Your task to perform on an android device: find which apps use the phone's location Image 0: 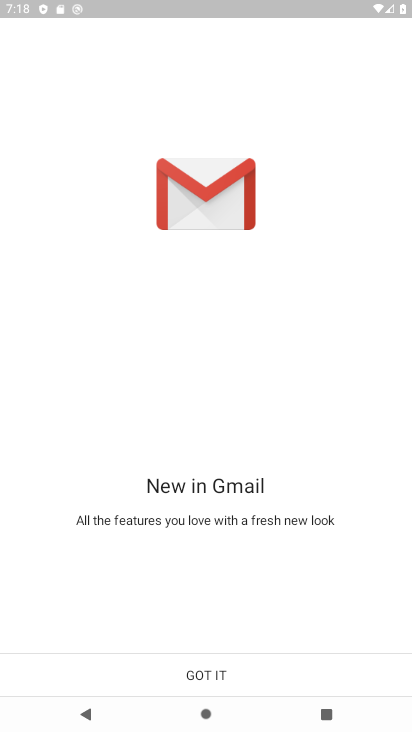
Step 0: press home button
Your task to perform on an android device: find which apps use the phone's location Image 1: 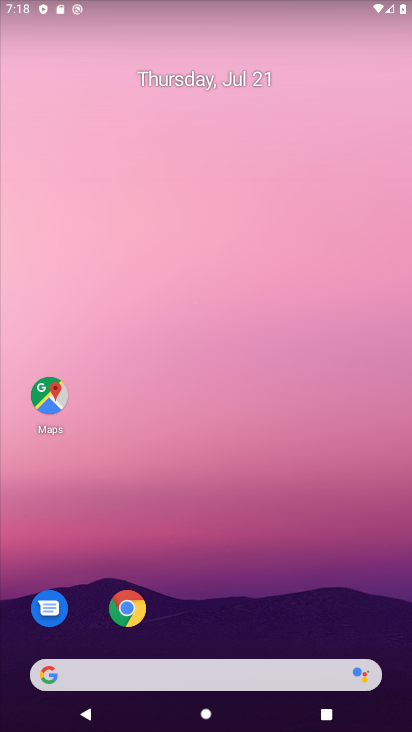
Step 1: drag from (174, 672) to (219, 202)
Your task to perform on an android device: find which apps use the phone's location Image 2: 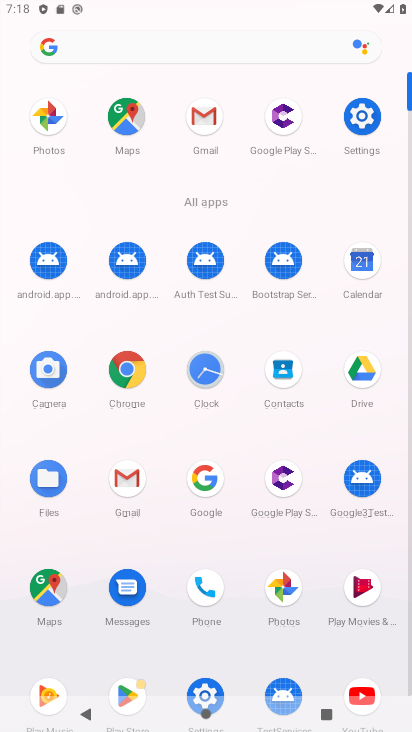
Step 2: click (363, 116)
Your task to perform on an android device: find which apps use the phone's location Image 3: 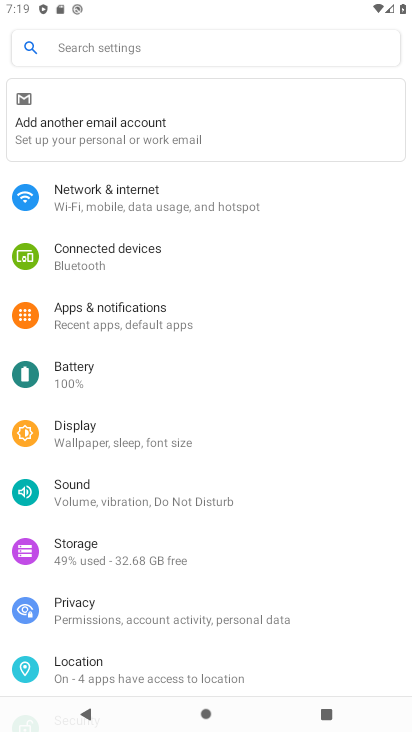
Step 3: click (87, 669)
Your task to perform on an android device: find which apps use the phone's location Image 4: 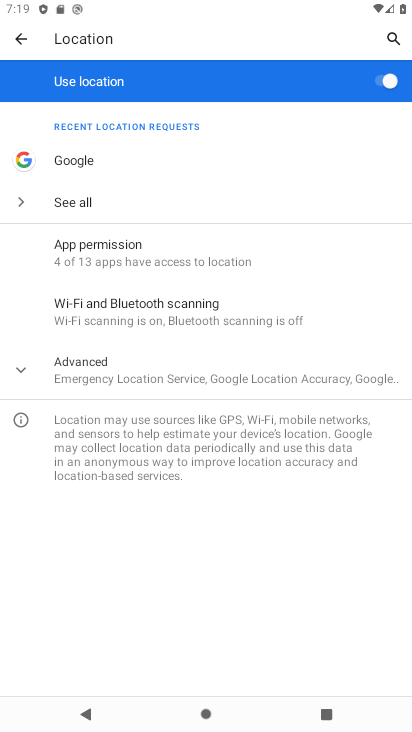
Step 4: click (172, 261)
Your task to perform on an android device: find which apps use the phone's location Image 5: 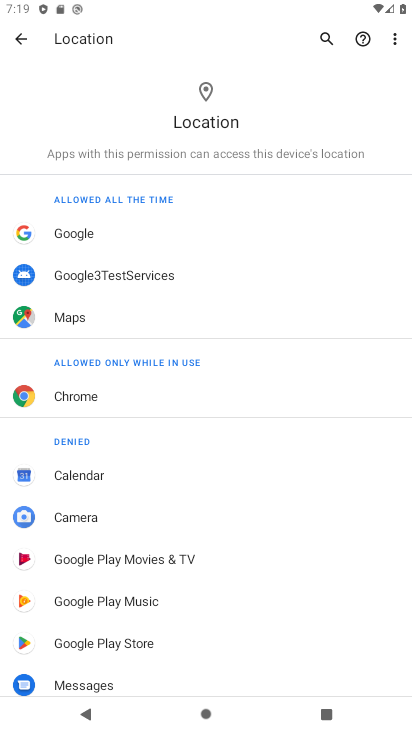
Step 5: click (74, 320)
Your task to perform on an android device: find which apps use the phone's location Image 6: 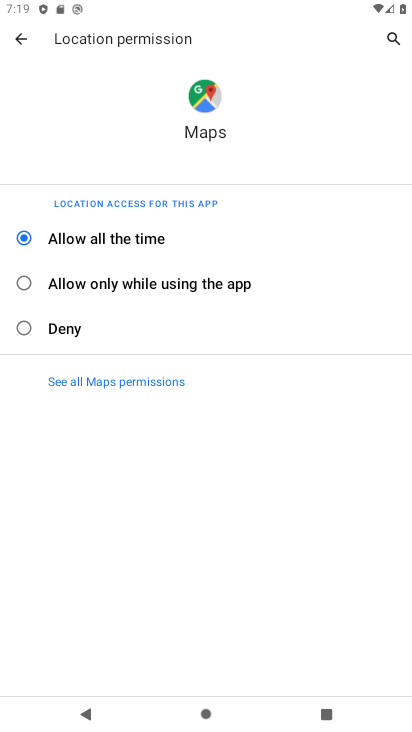
Step 6: task complete